Your task to perform on an android device: turn off location history Image 0: 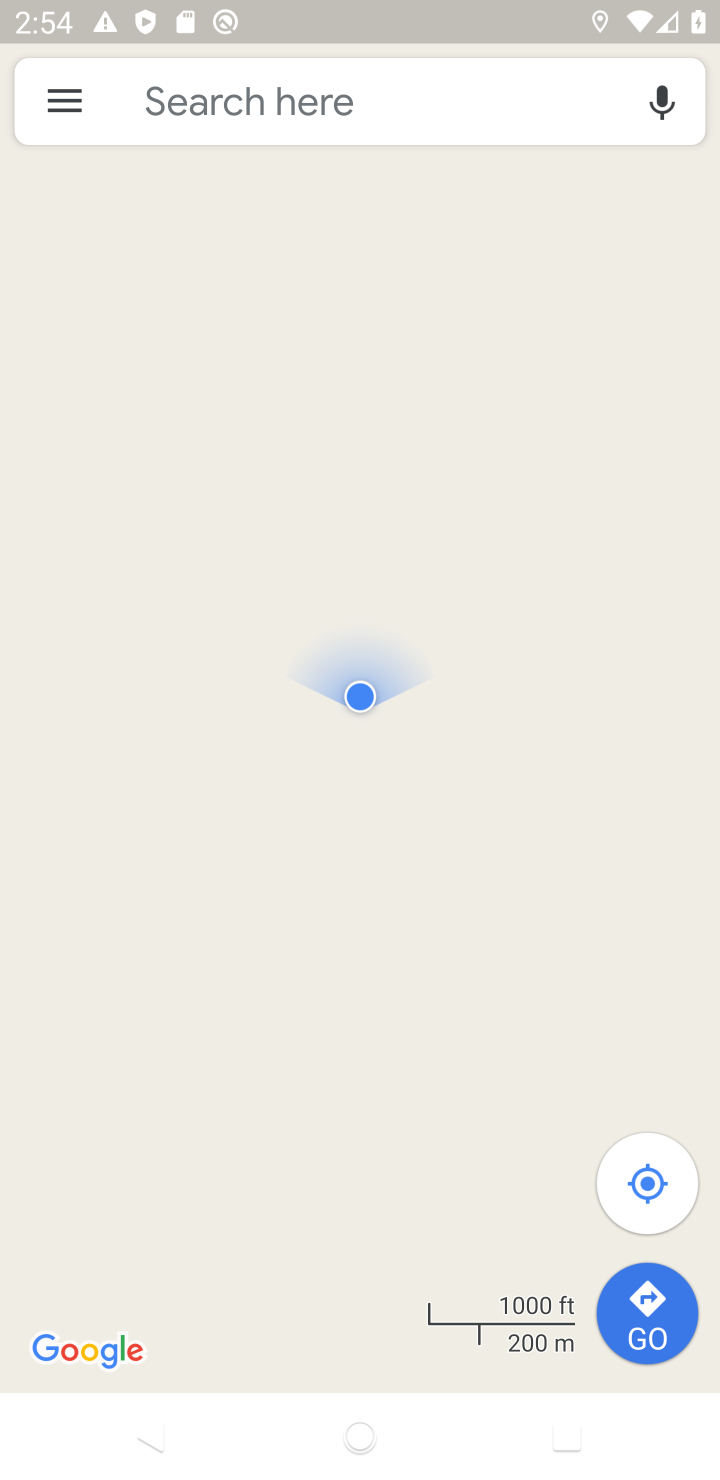
Step 0: press home button
Your task to perform on an android device: turn off location history Image 1: 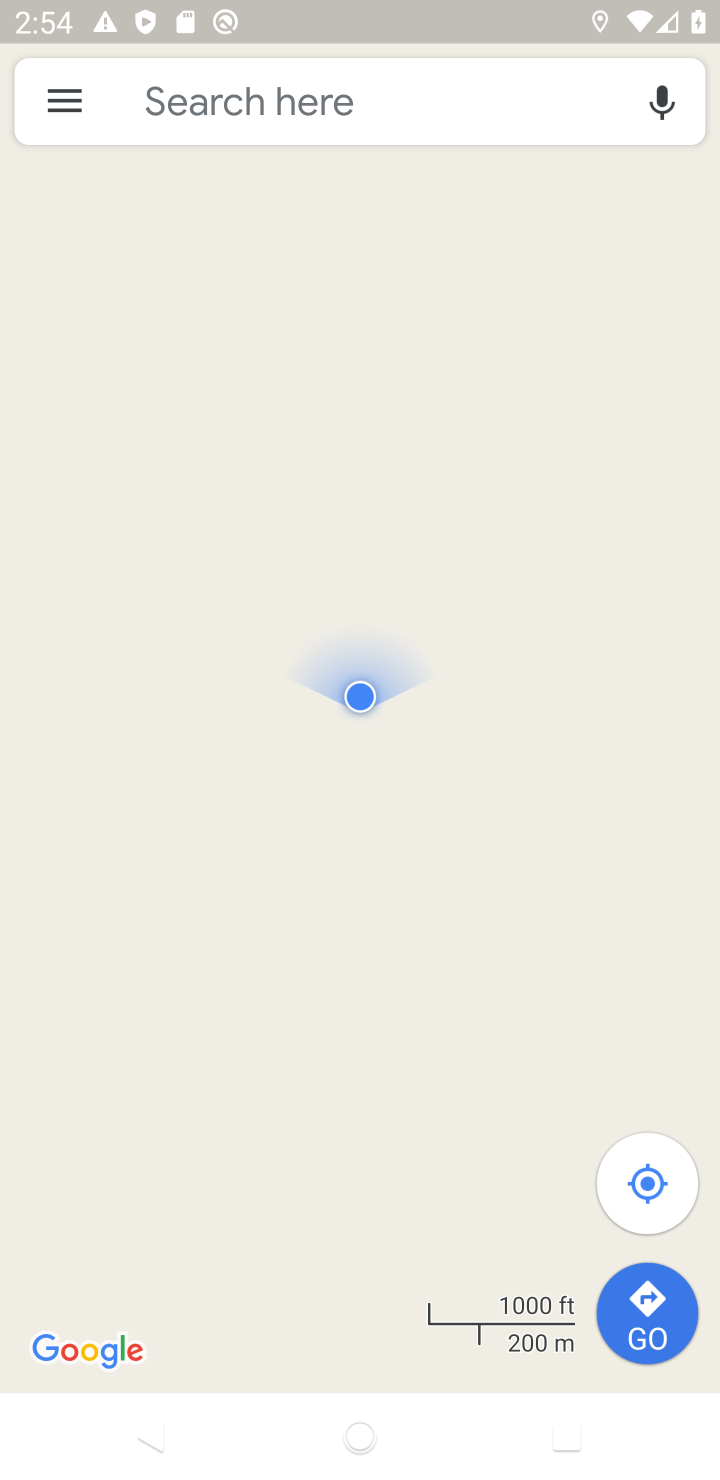
Step 1: press home button
Your task to perform on an android device: turn off location history Image 2: 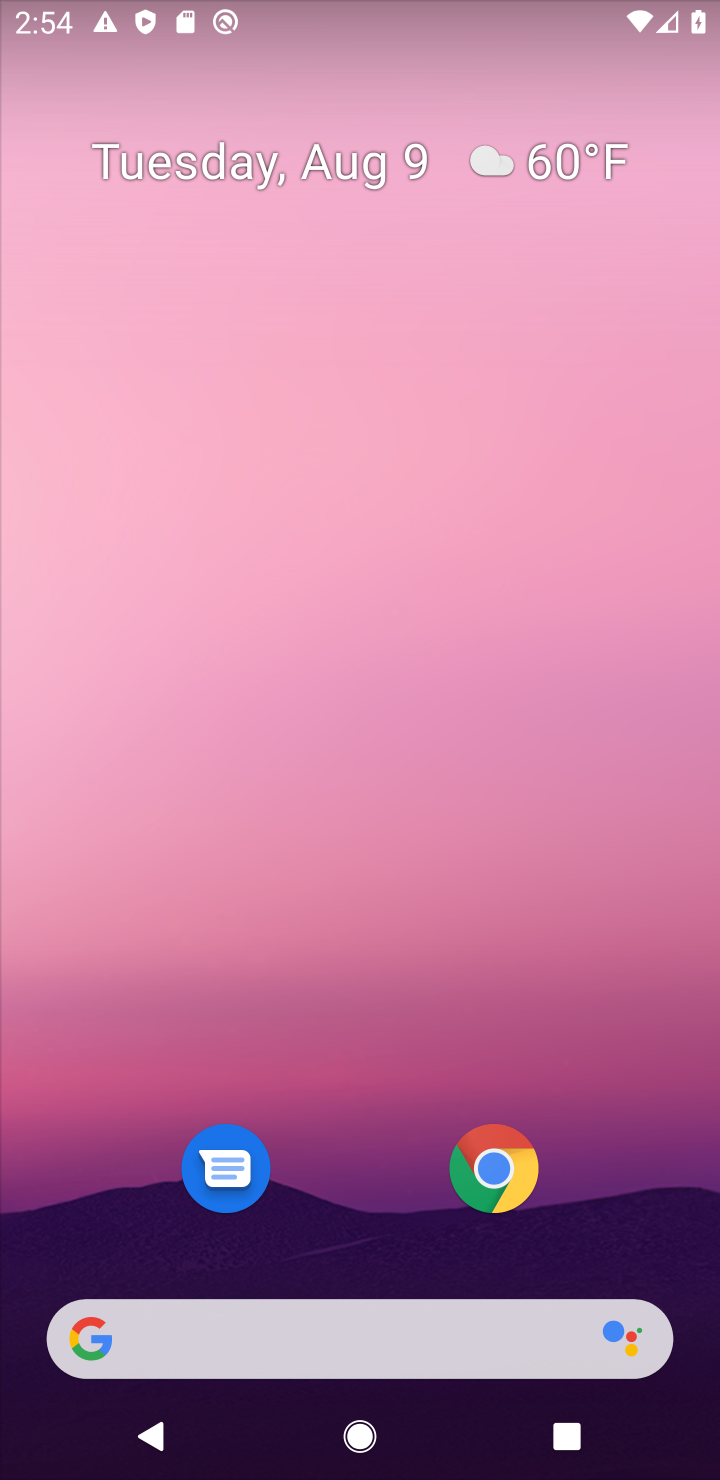
Step 2: drag from (423, 934) to (505, 384)
Your task to perform on an android device: turn off location history Image 3: 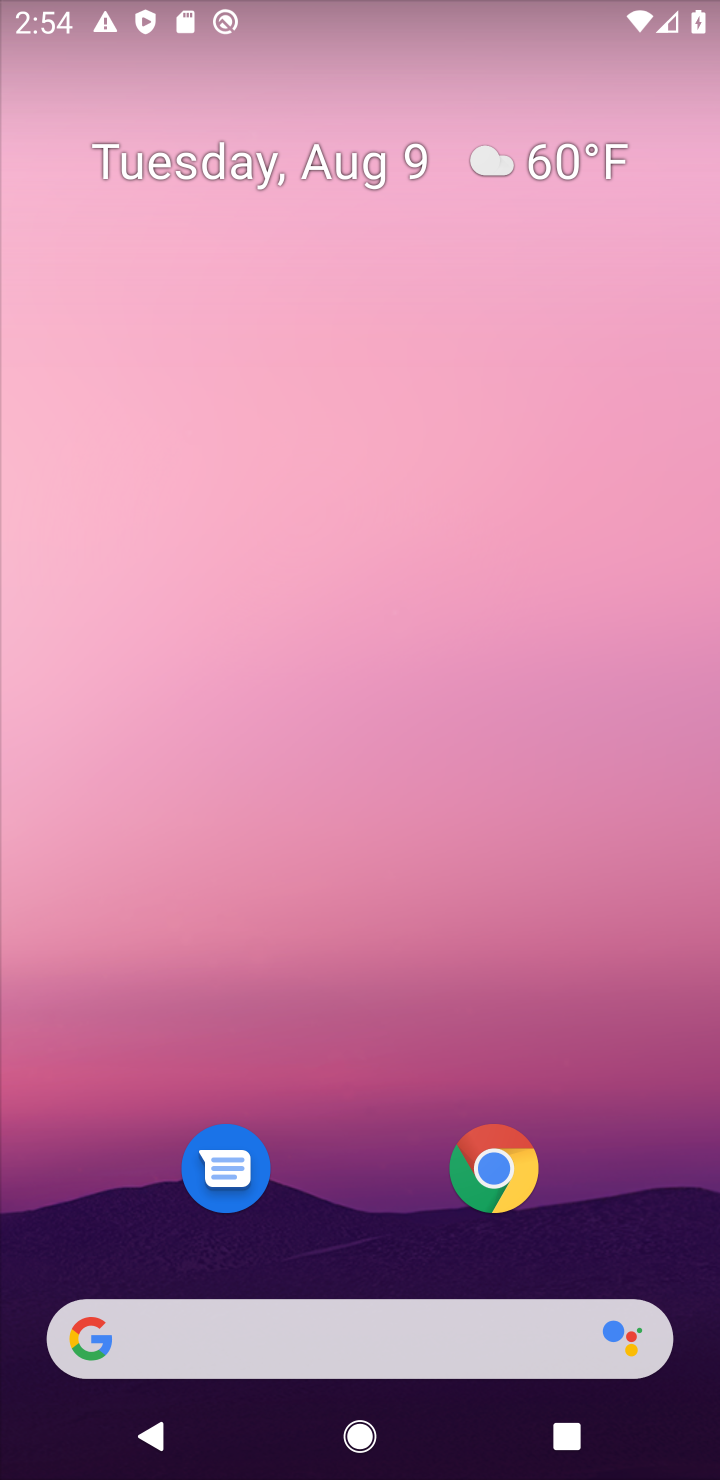
Step 3: drag from (370, 1174) to (270, 10)
Your task to perform on an android device: turn off location history Image 4: 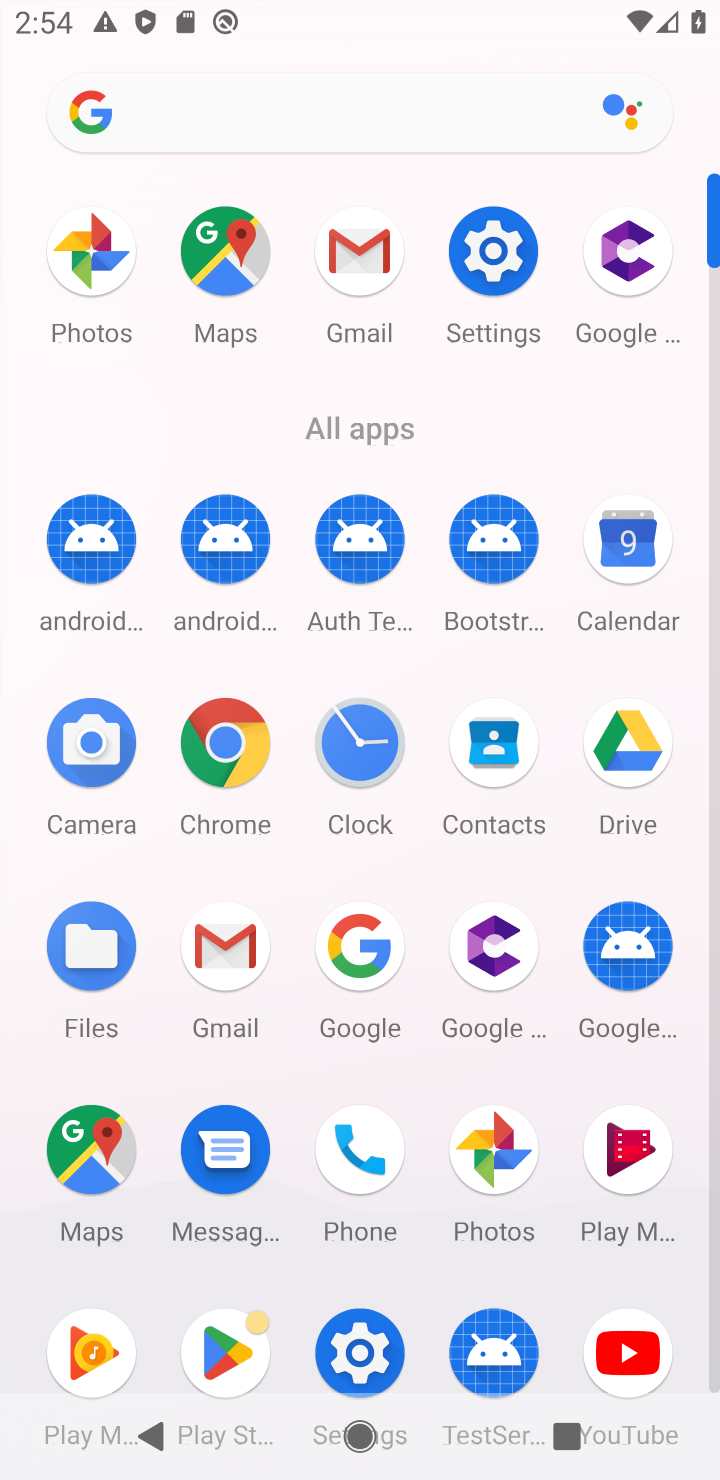
Step 4: click (356, 1342)
Your task to perform on an android device: turn off location history Image 5: 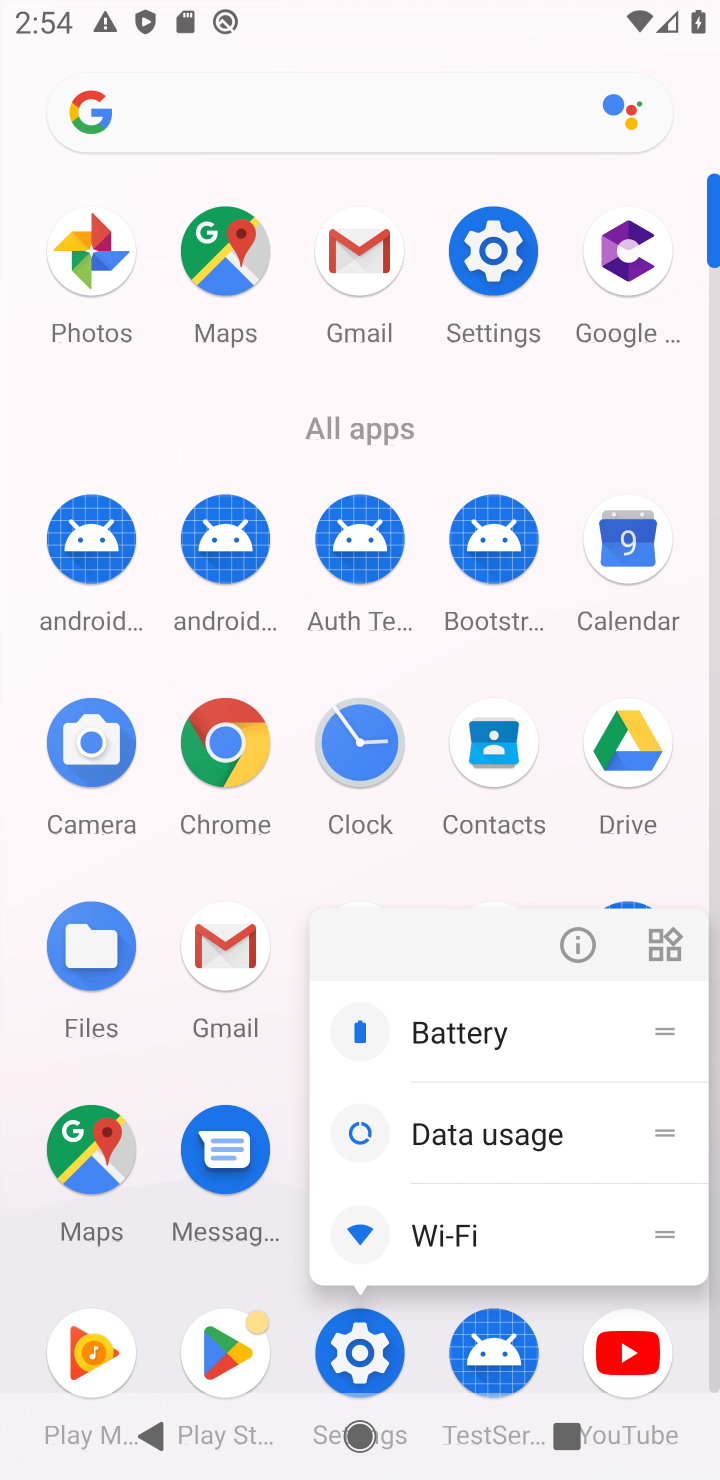
Step 5: click (346, 1337)
Your task to perform on an android device: turn off location history Image 6: 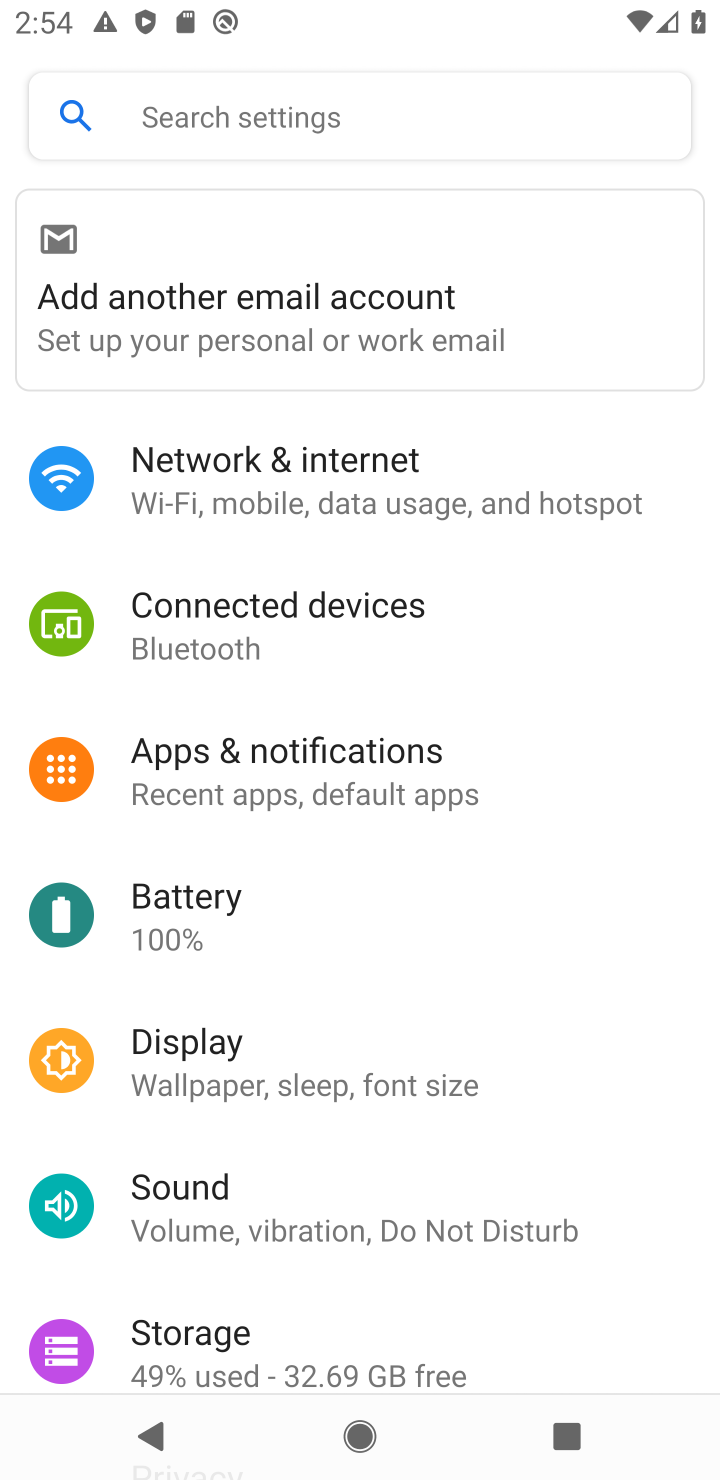
Step 6: drag from (619, 1210) to (347, 204)
Your task to perform on an android device: turn off location history Image 7: 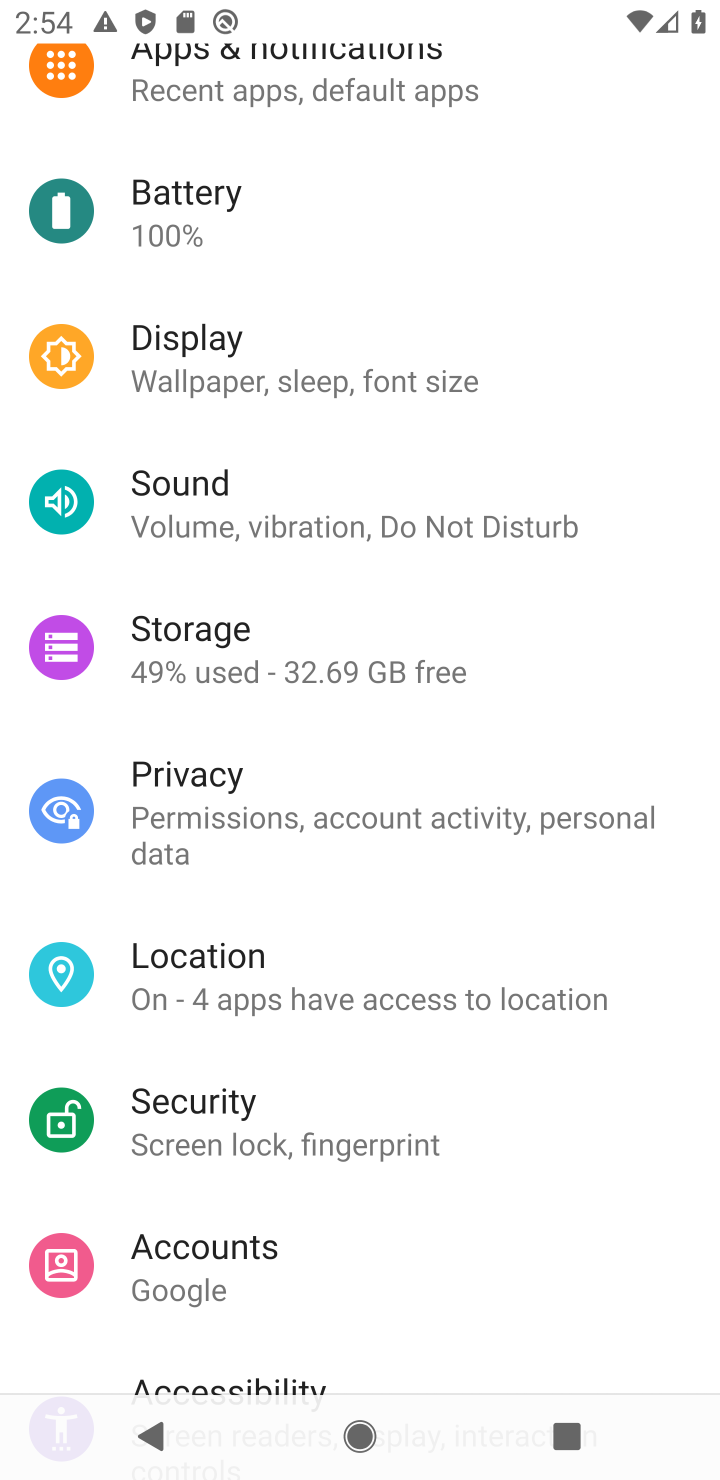
Step 7: click (159, 986)
Your task to perform on an android device: turn off location history Image 8: 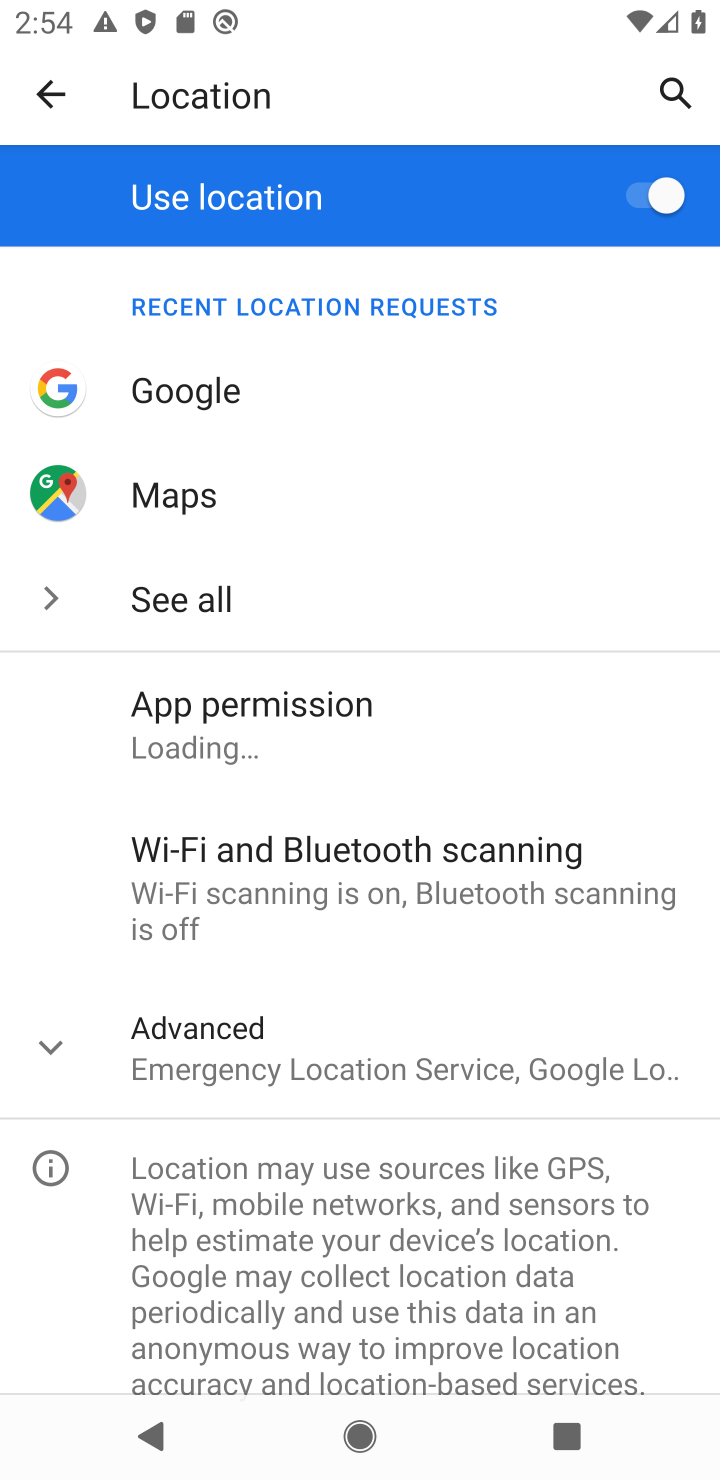
Step 8: click (227, 1038)
Your task to perform on an android device: turn off location history Image 9: 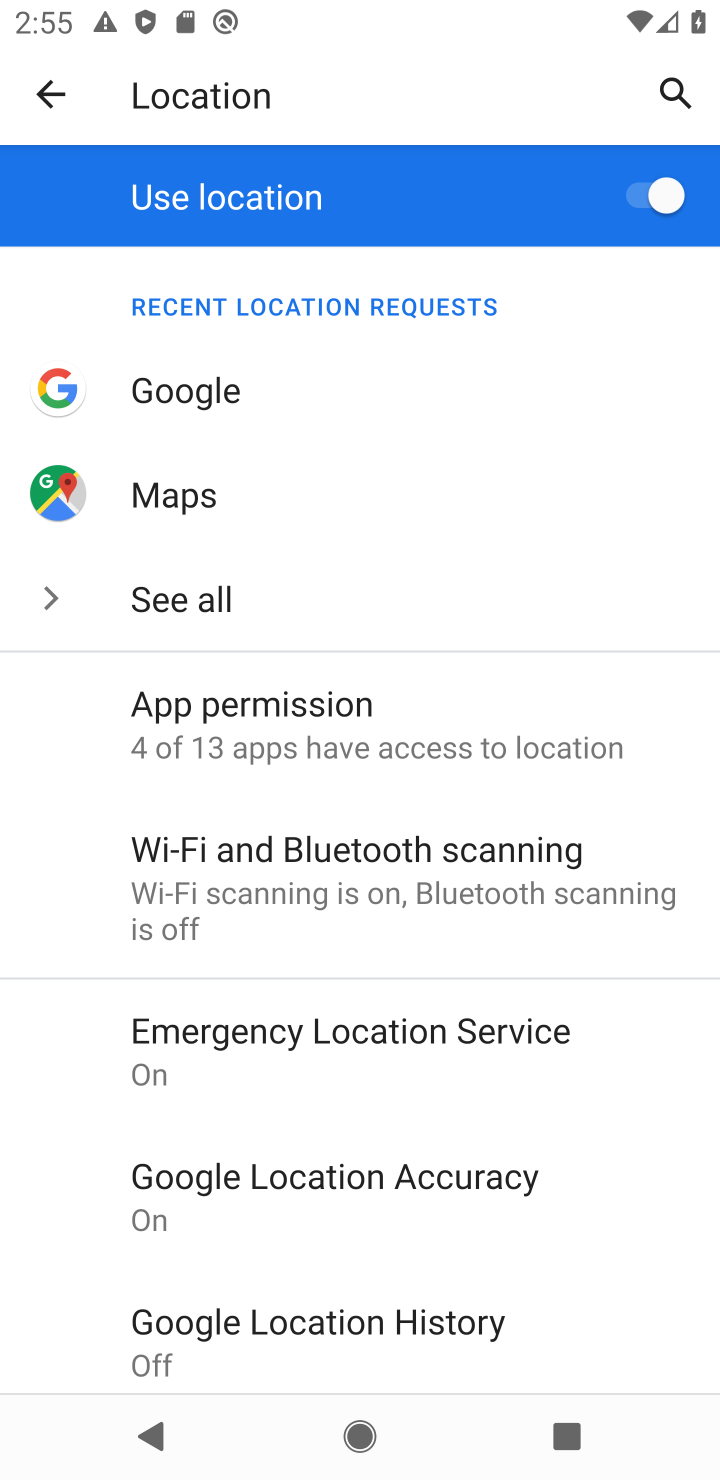
Step 9: click (385, 1334)
Your task to perform on an android device: turn off location history Image 10: 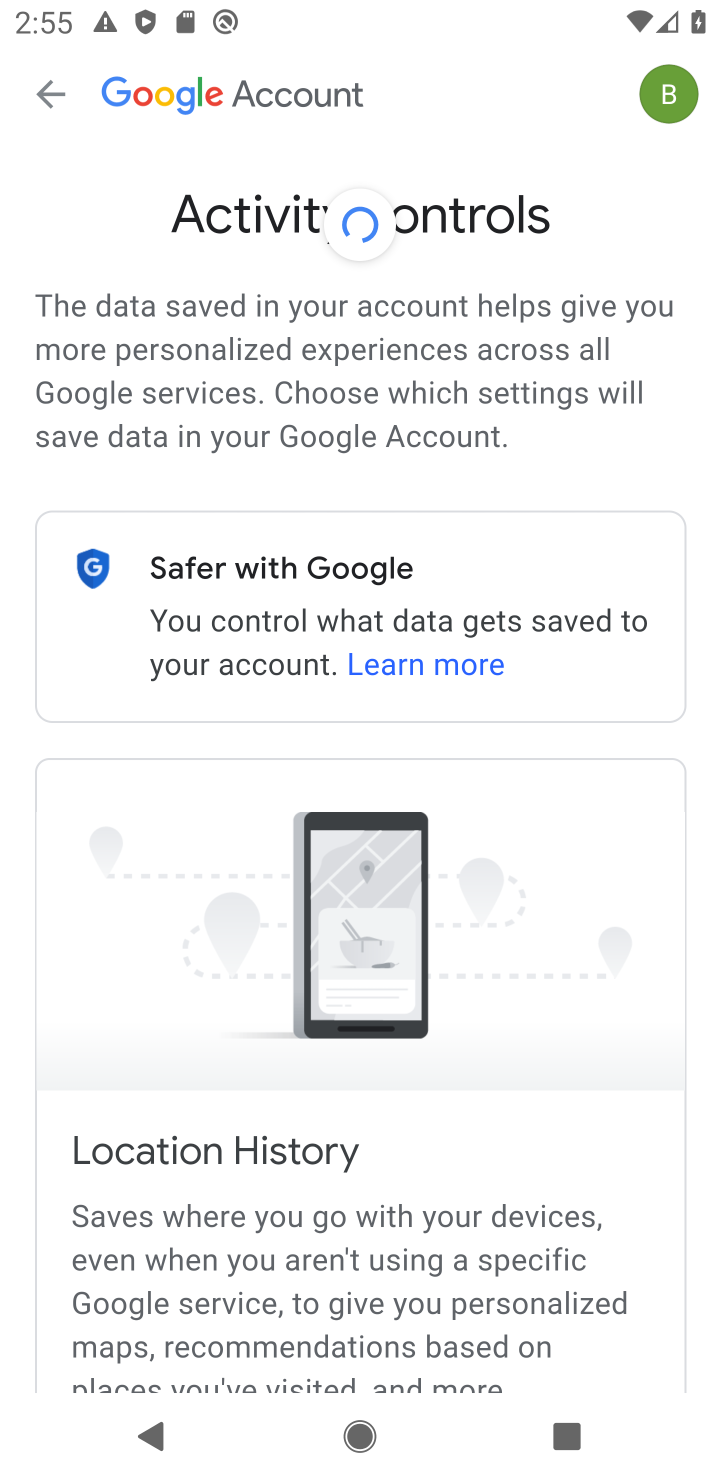
Step 10: task complete